Your task to perform on an android device: Open Google Maps Image 0: 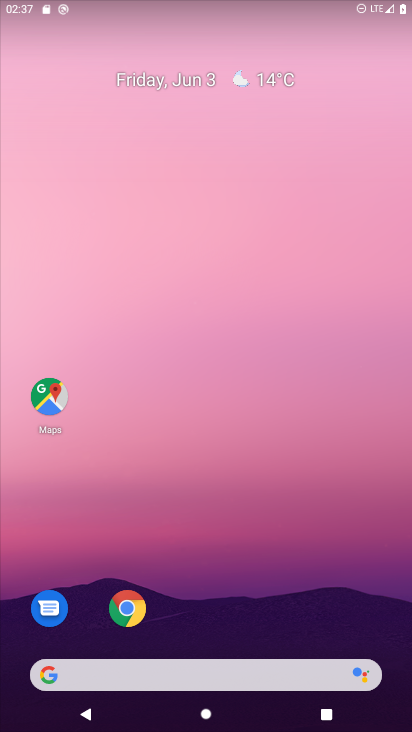
Step 0: click (51, 397)
Your task to perform on an android device: Open Google Maps Image 1: 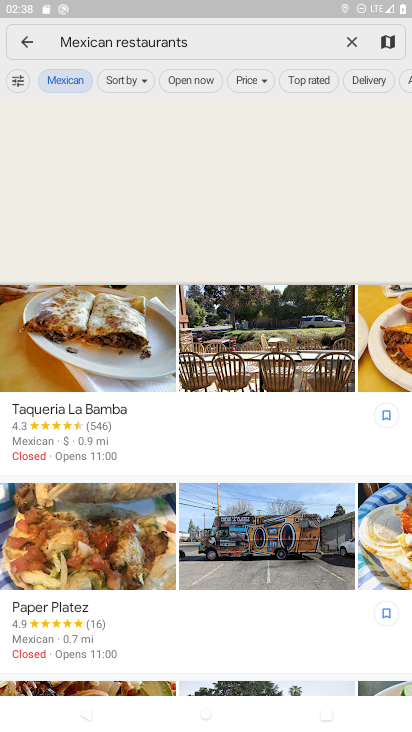
Step 1: task complete